Your task to perform on an android device: delete the emails in spam in the gmail app Image 0: 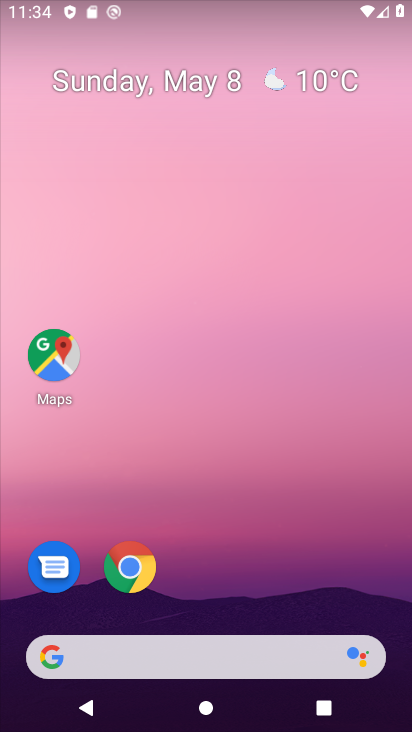
Step 0: drag from (247, 522) to (221, 221)
Your task to perform on an android device: delete the emails in spam in the gmail app Image 1: 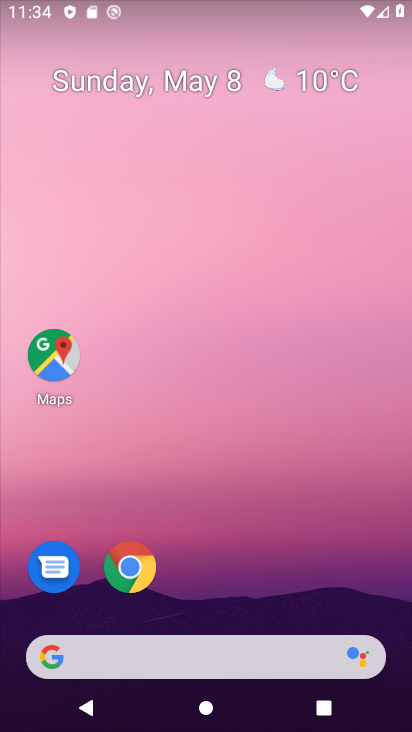
Step 1: drag from (329, 606) to (303, 1)
Your task to perform on an android device: delete the emails in spam in the gmail app Image 2: 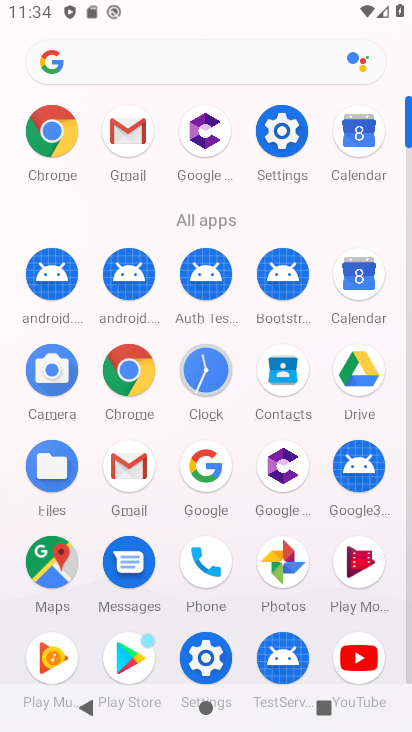
Step 2: click (119, 139)
Your task to perform on an android device: delete the emails in spam in the gmail app Image 3: 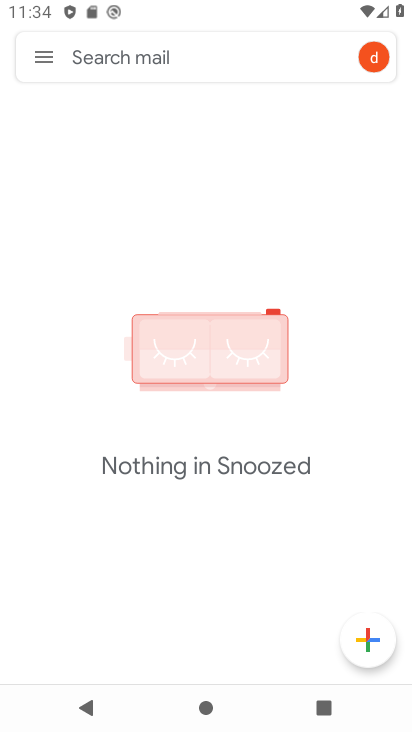
Step 3: click (36, 50)
Your task to perform on an android device: delete the emails in spam in the gmail app Image 4: 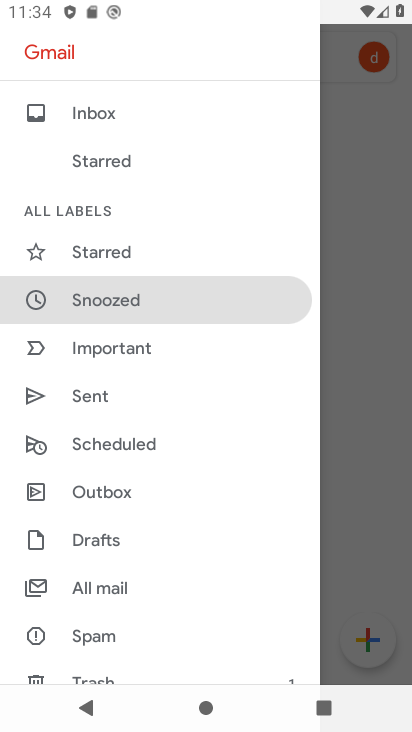
Step 4: click (110, 639)
Your task to perform on an android device: delete the emails in spam in the gmail app Image 5: 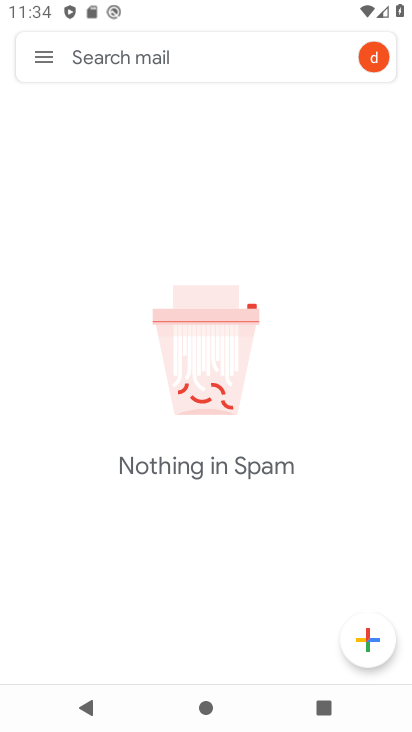
Step 5: task complete